Your task to perform on an android device: turn off airplane mode Image 0: 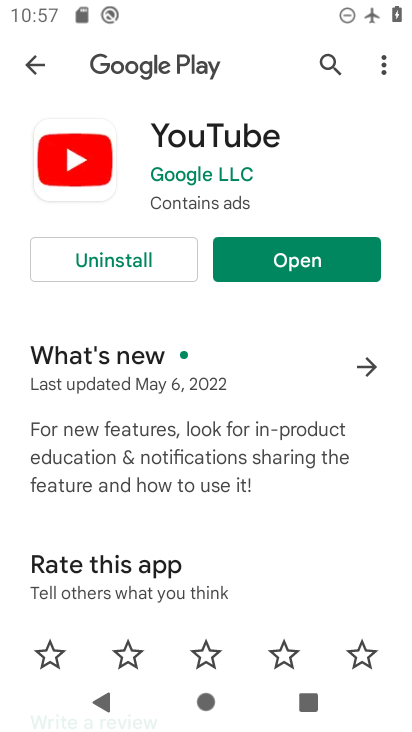
Step 0: press home button
Your task to perform on an android device: turn off airplane mode Image 1: 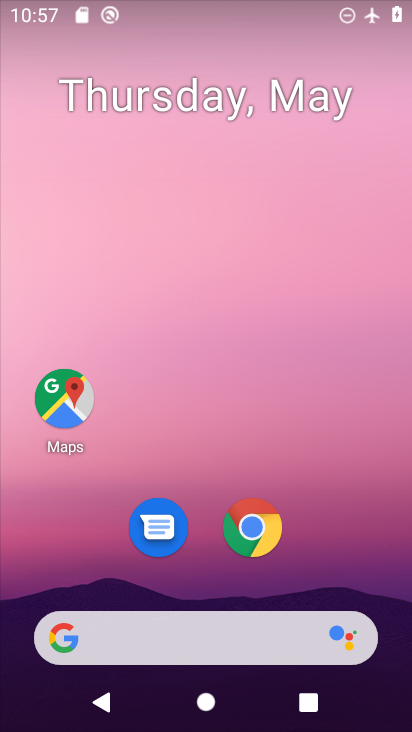
Step 1: drag from (320, 551) to (327, 161)
Your task to perform on an android device: turn off airplane mode Image 2: 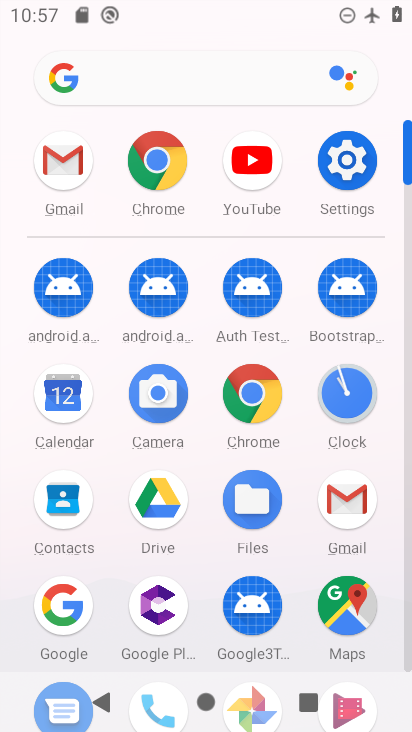
Step 2: click (335, 171)
Your task to perform on an android device: turn off airplane mode Image 3: 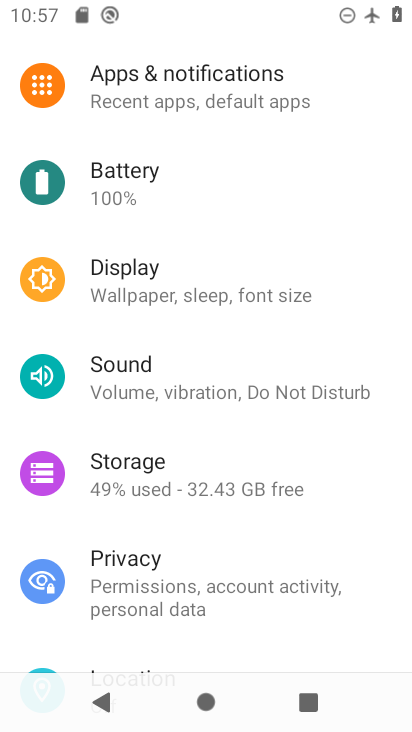
Step 3: drag from (232, 196) to (223, 646)
Your task to perform on an android device: turn off airplane mode Image 4: 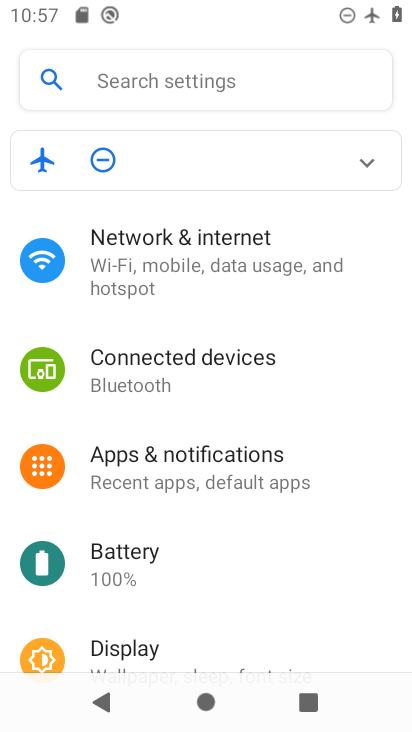
Step 4: click (219, 252)
Your task to perform on an android device: turn off airplane mode Image 5: 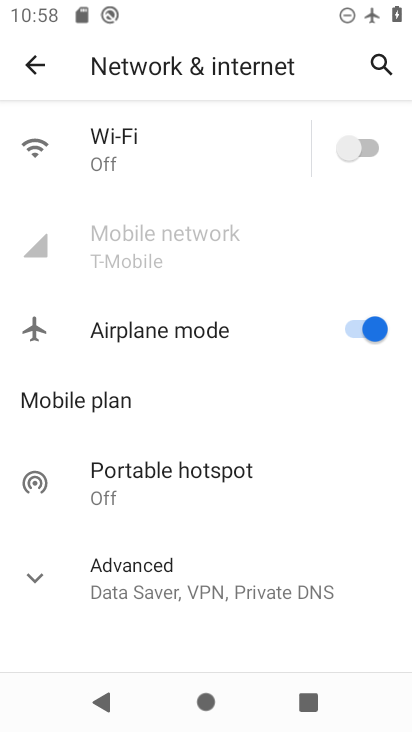
Step 5: click (340, 326)
Your task to perform on an android device: turn off airplane mode Image 6: 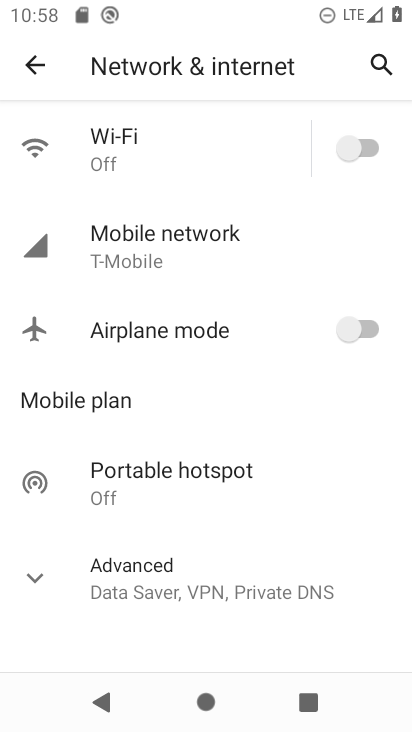
Step 6: task complete